Your task to perform on an android device: check storage Image 0: 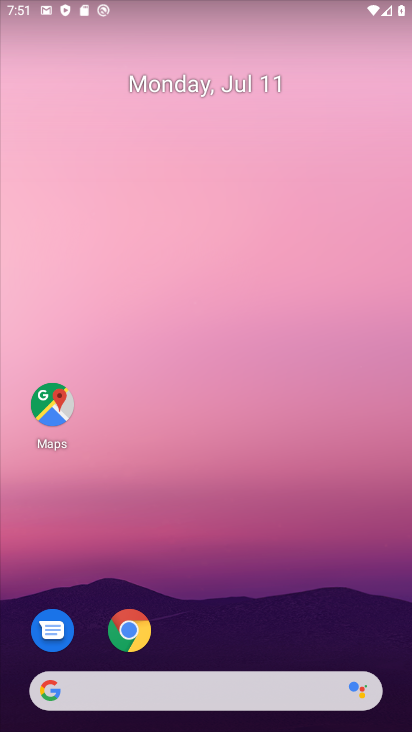
Step 0: drag from (193, 661) to (303, 116)
Your task to perform on an android device: check storage Image 1: 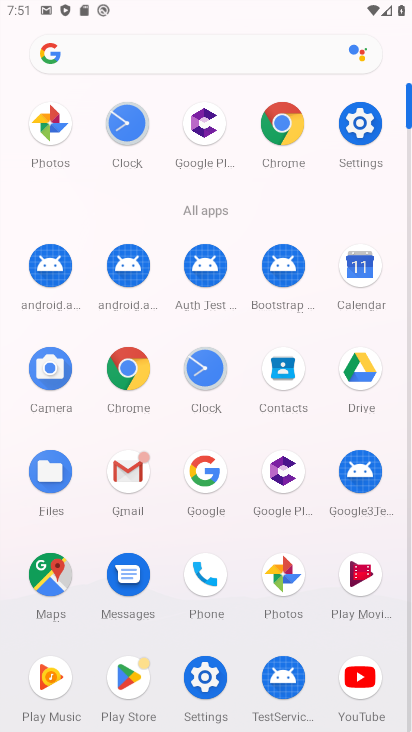
Step 1: click (201, 688)
Your task to perform on an android device: check storage Image 2: 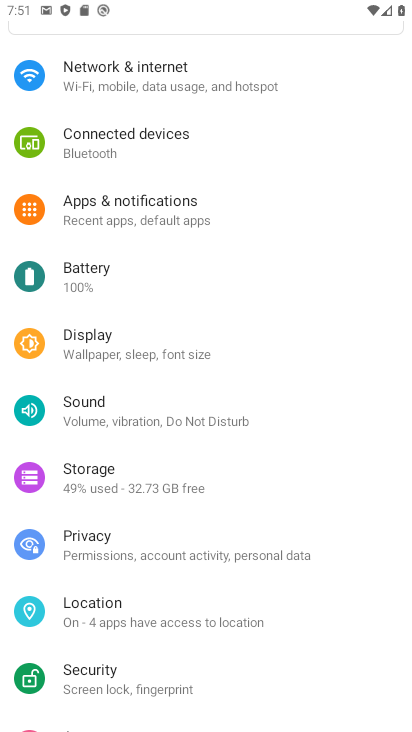
Step 2: click (162, 483)
Your task to perform on an android device: check storage Image 3: 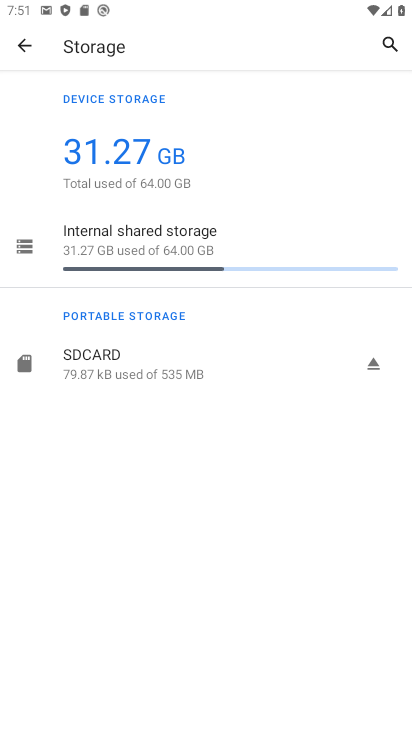
Step 3: task complete